Your task to perform on an android device: move an email to a new category in the gmail app Image 0: 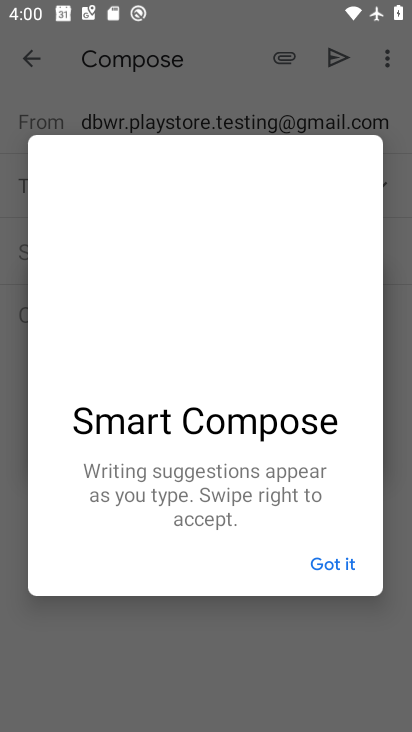
Step 0: press home button
Your task to perform on an android device: move an email to a new category in the gmail app Image 1: 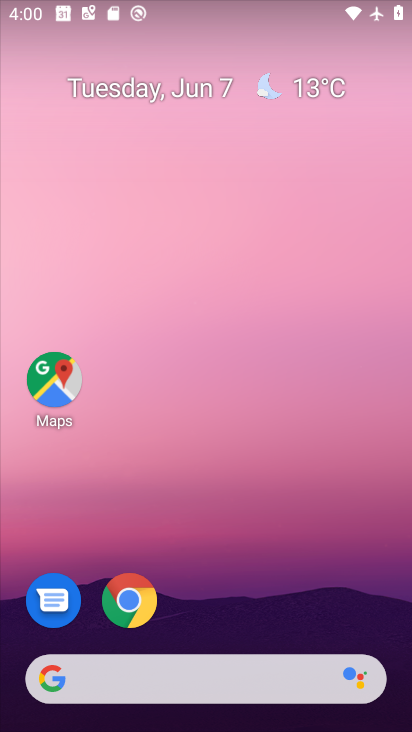
Step 1: drag from (245, 572) to (214, 208)
Your task to perform on an android device: move an email to a new category in the gmail app Image 2: 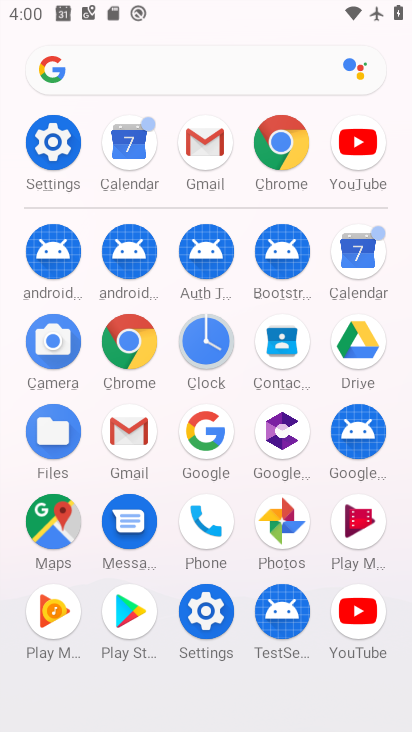
Step 2: click (208, 158)
Your task to perform on an android device: move an email to a new category in the gmail app Image 3: 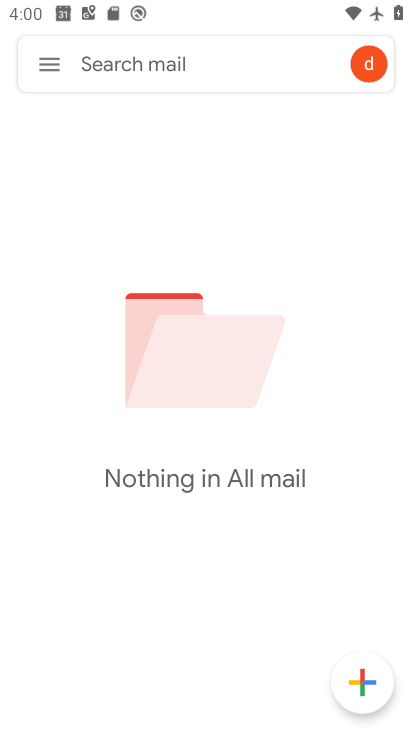
Step 3: task complete